Your task to perform on an android device: Open calendar and show me the first week of next month Image 0: 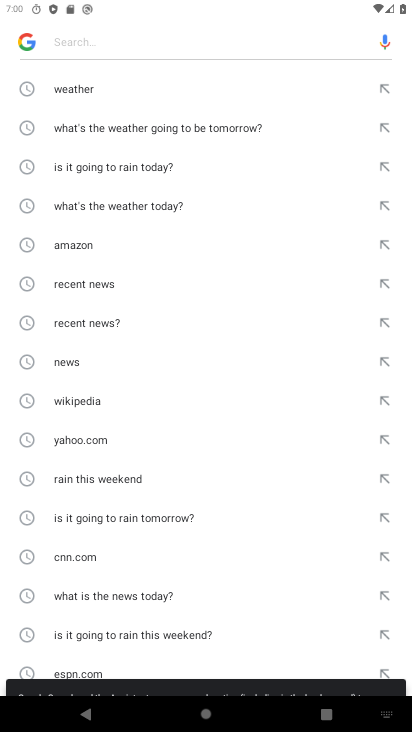
Step 0: press home button
Your task to perform on an android device: Open calendar and show me the first week of next month Image 1: 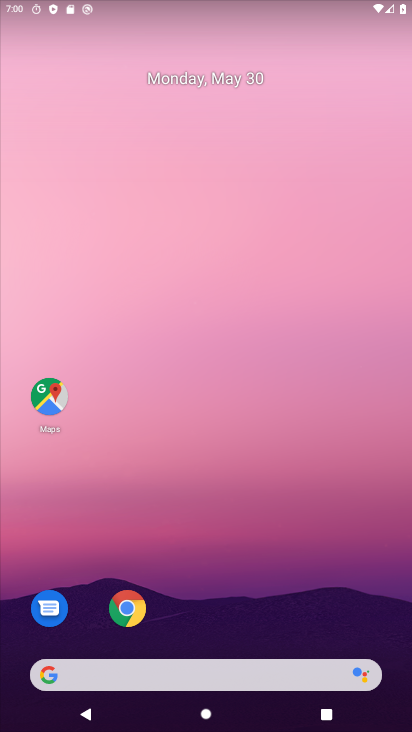
Step 1: drag from (330, 624) to (409, 219)
Your task to perform on an android device: Open calendar and show me the first week of next month Image 2: 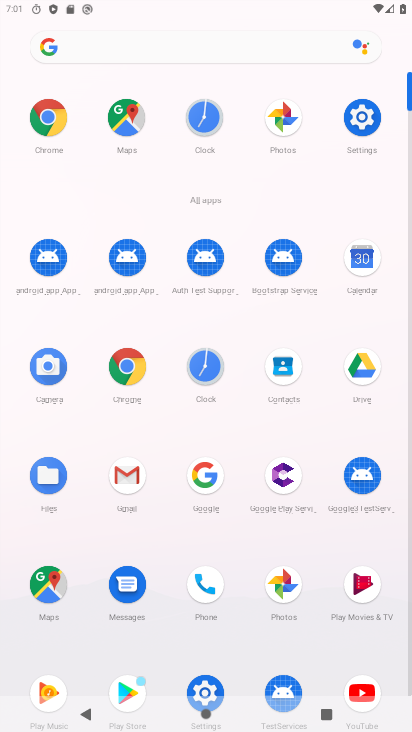
Step 2: click (361, 261)
Your task to perform on an android device: Open calendar and show me the first week of next month Image 3: 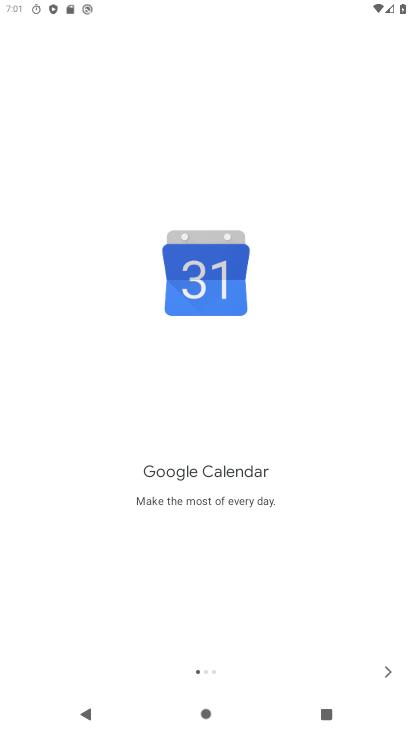
Step 3: click (387, 667)
Your task to perform on an android device: Open calendar and show me the first week of next month Image 4: 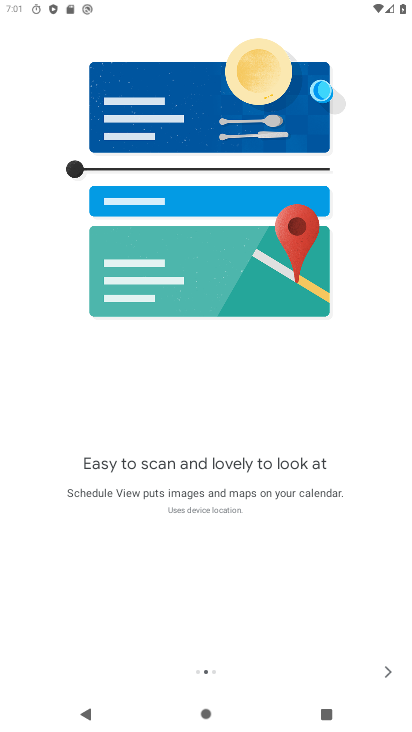
Step 4: click (390, 667)
Your task to perform on an android device: Open calendar and show me the first week of next month Image 5: 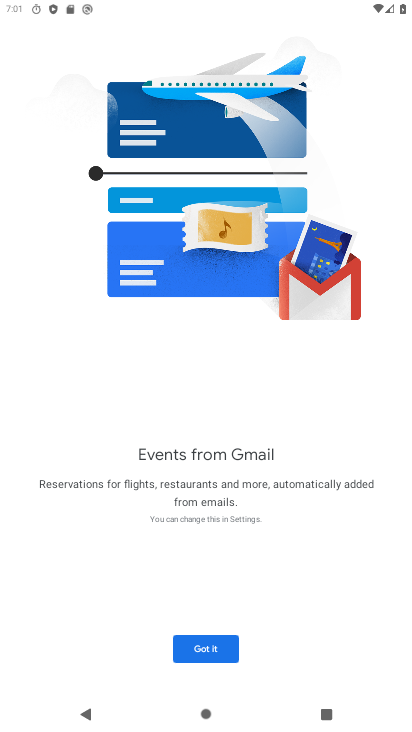
Step 5: click (200, 650)
Your task to perform on an android device: Open calendar and show me the first week of next month Image 6: 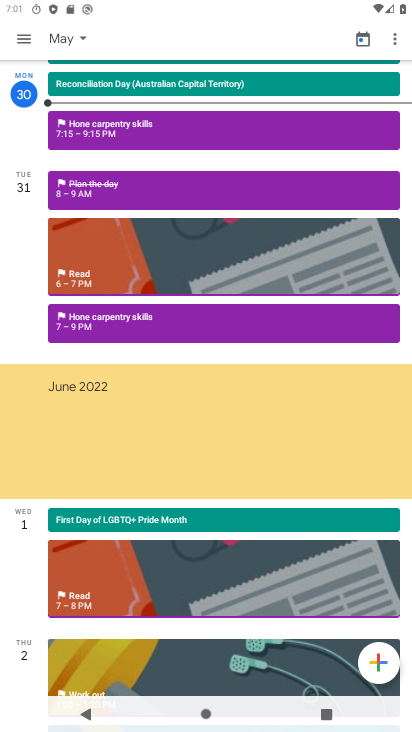
Step 6: click (77, 46)
Your task to perform on an android device: Open calendar and show me the first week of next month Image 7: 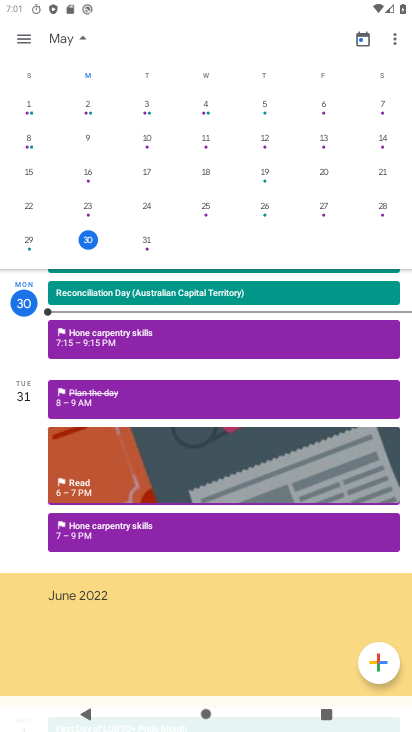
Step 7: drag from (395, 162) to (13, 110)
Your task to perform on an android device: Open calendar and show me the first week of next month Image 8: 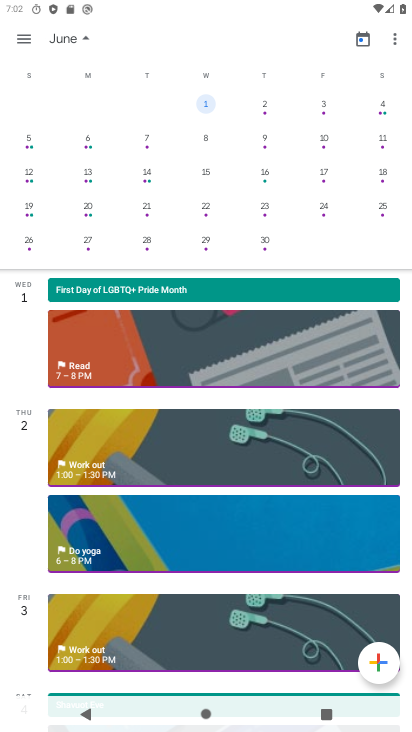
Step 8: click (259, 106)
Your task to perform on an android device: Open calendar and show me the first week of next month Image 9: 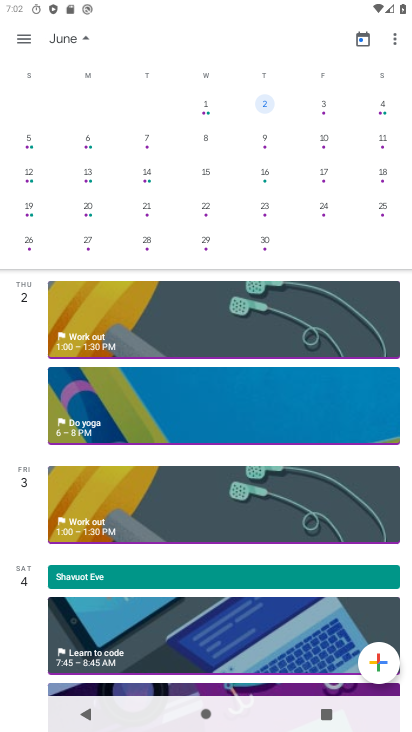
Step 9: click (323, 105)
Your task to perform on an android device: Open calendar and show me the first week of next month Image 10: 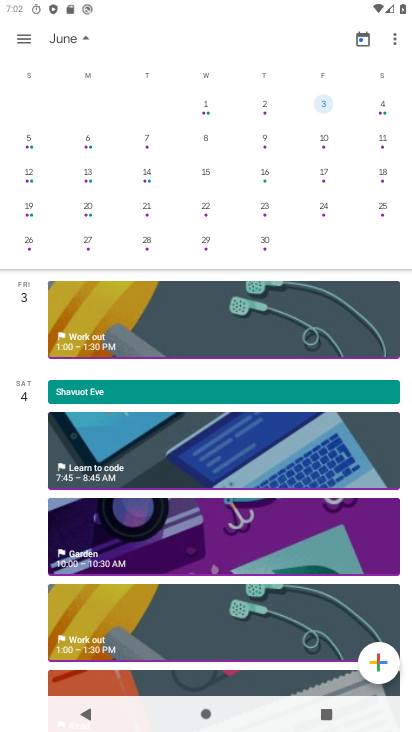
Step 10: click (382, 103)
Your task to perform on an android device: Open calendar and show me the first week of next month Image 11: 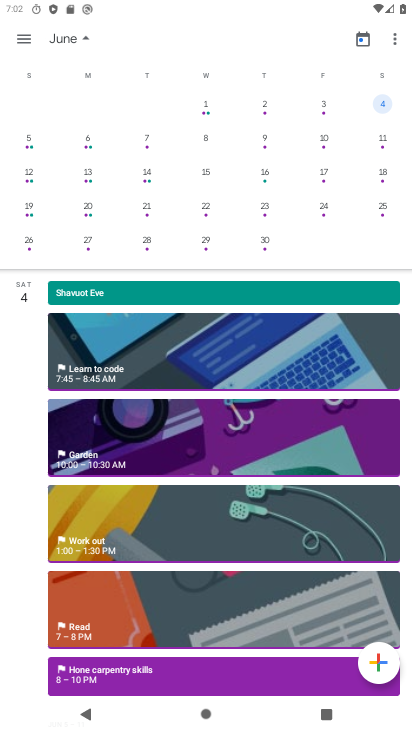
Step 11: task complete